Your task to perform on an android device: Show me the alarms in the clock app Image 0: 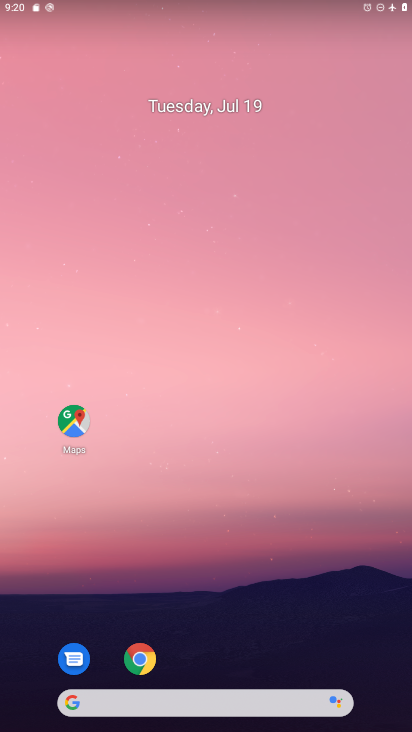
Step 0: drag from (297, 623) to (296, 321)
Your task to perform on an android device: Show me the alarms in the clock app Image 1: 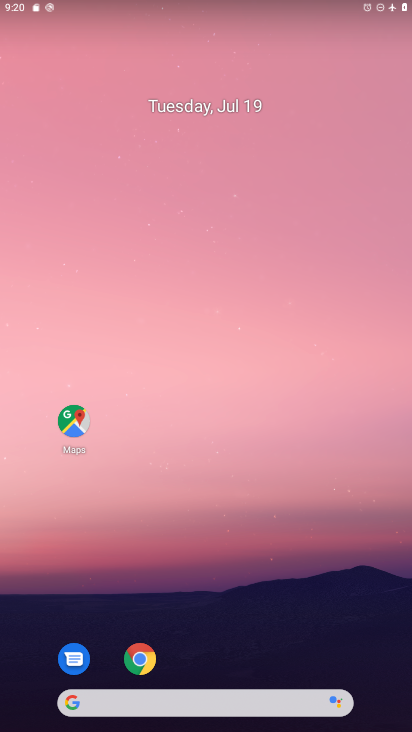
Step 1: drag from (198, 641) to (192, 325)
Your task to perform on an android device: Show me the alarms in the clock app Image 2: 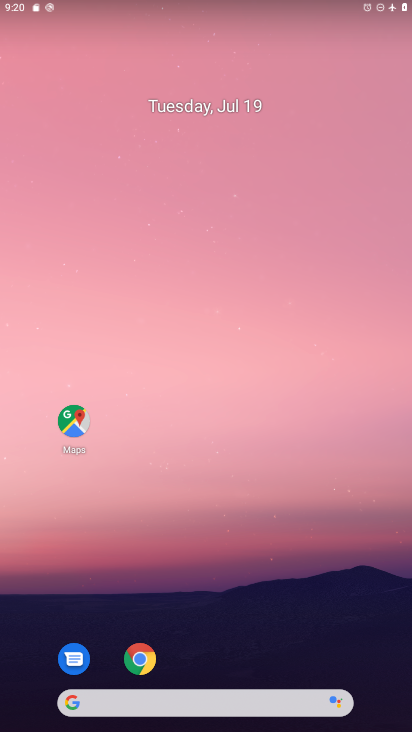
Step 2: drag from (196, 663) to (271, 167)
Your task to perform on an android device: Show me the alarms in the clock app Image 3: 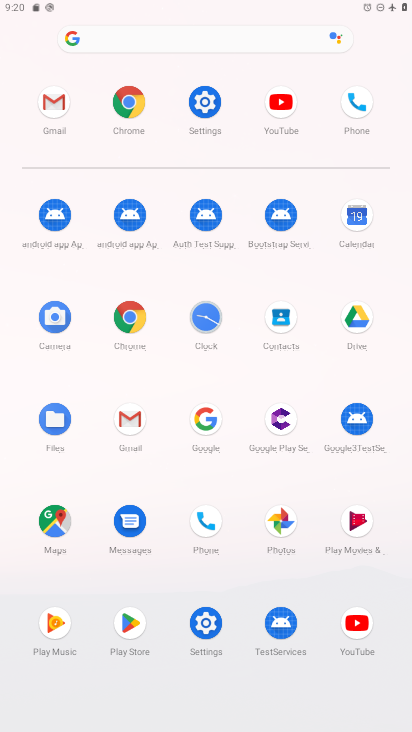
Step 3: click (211, 313)
Your task to perform on an android device: Show me the alarms in the clock app Image 4: 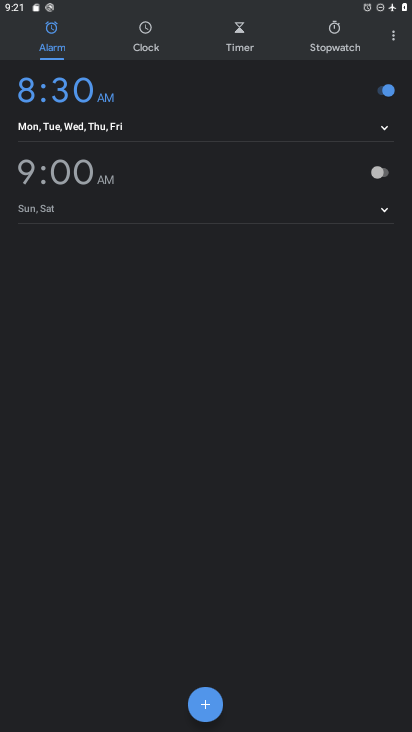
Step 4: task complete